Your task to perform on an android device: visit the assistant section in the google photos Image 0: 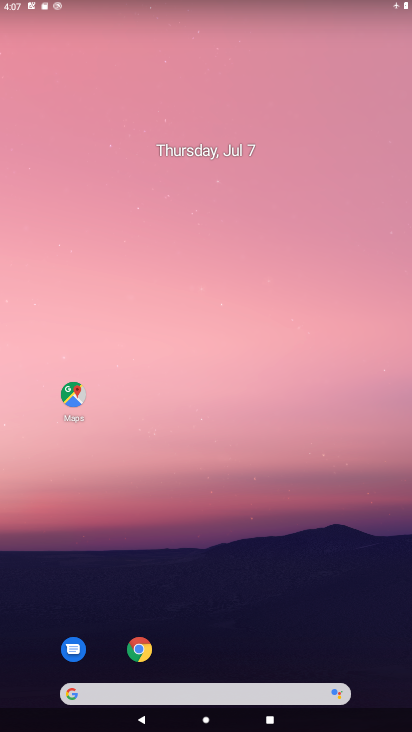
Step 0: drag from (373, 645) to (308, 199)
Your task to perform on an android device: visit the assistant section in the google photos Image 1: 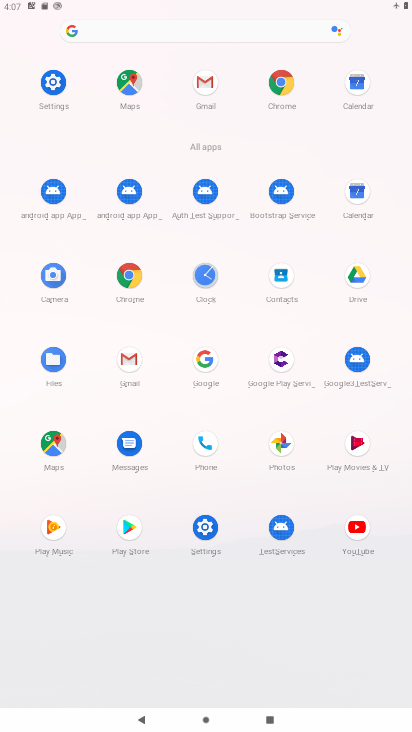
Step 1: click (280, 442)
Your task to perform on an android device: visit the assistant section in the google photos Image 2: 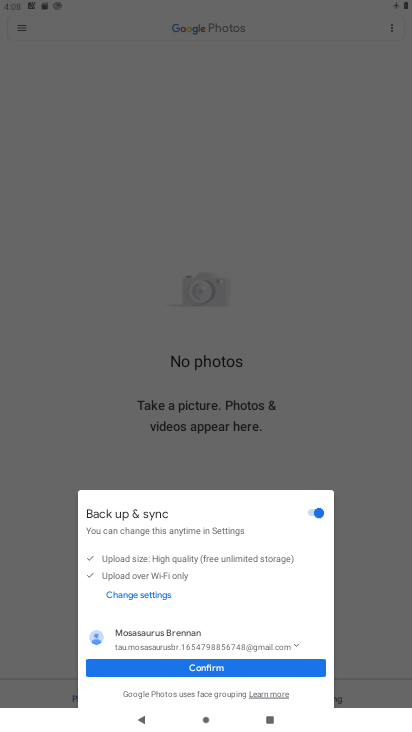
Step 2: click (204, 667)
Your task to perform on an android device: visit the assistant section in the google photos Image 3: 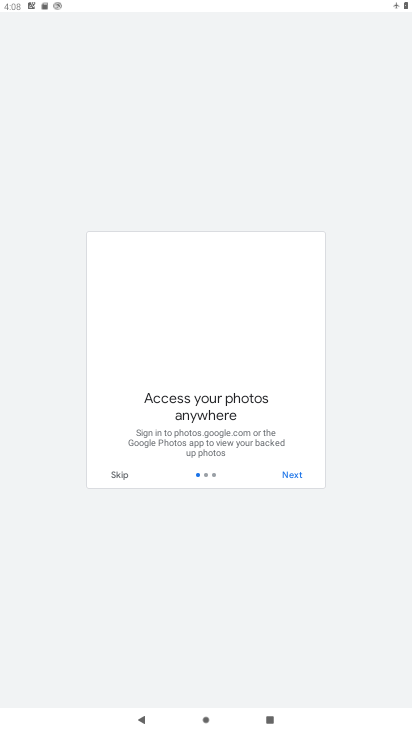
Step 3: click (121, 475)
Your task to perform on an android device: visit the assistant section in the google photos Image 4: 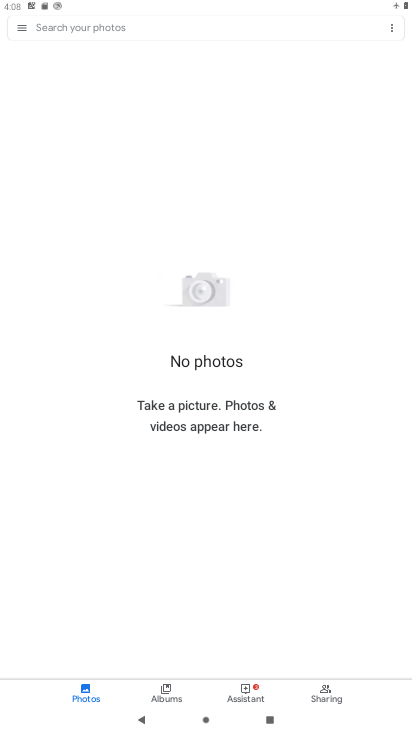
Step 4: click (246, 691)
Your task to perform on an android device: visit the assistant section in the google photos Image 5: 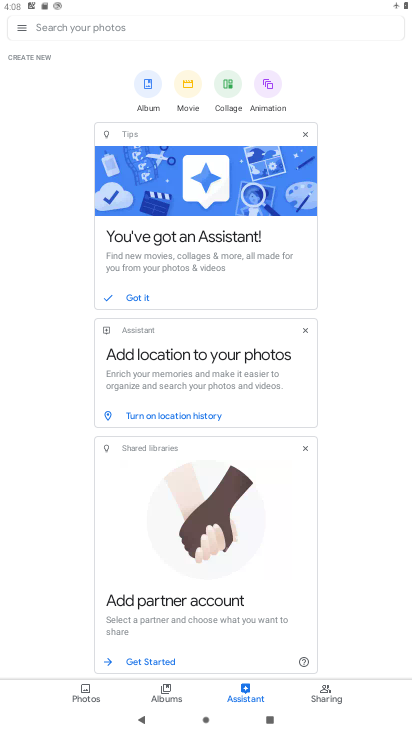
Step 5: task complete